Your task to perform on an android device: Show me popular videos on Youtube Image 0: 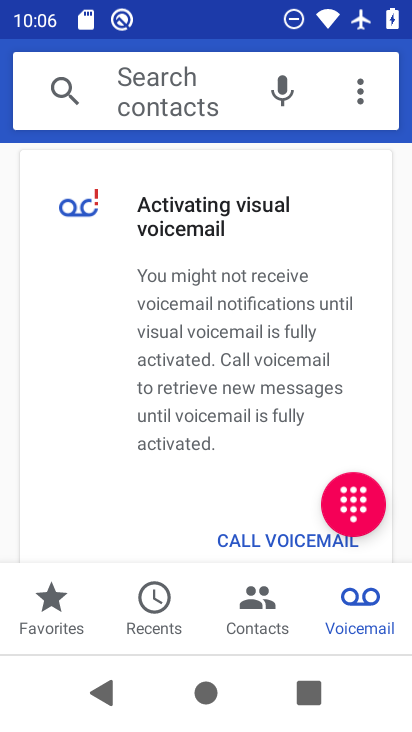
Step 0: press home button
Your task to perform on an android device: Show me popular videos on Youtube Image 1: 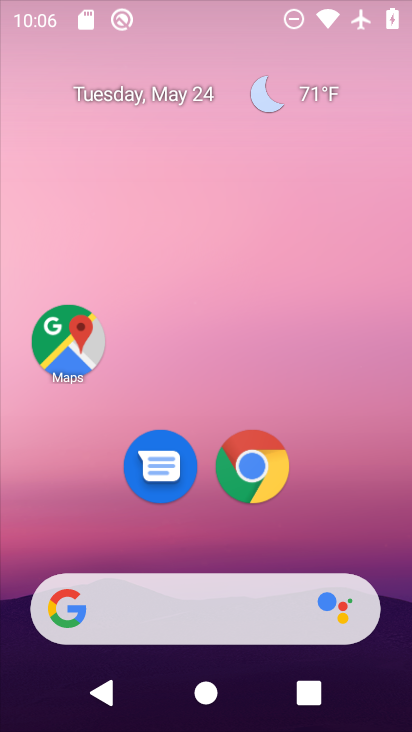
Step 1: drag from (223, 550) to (312, 21)
Your task to perform on an android device: Show me popular videos on Youtube Image 2: 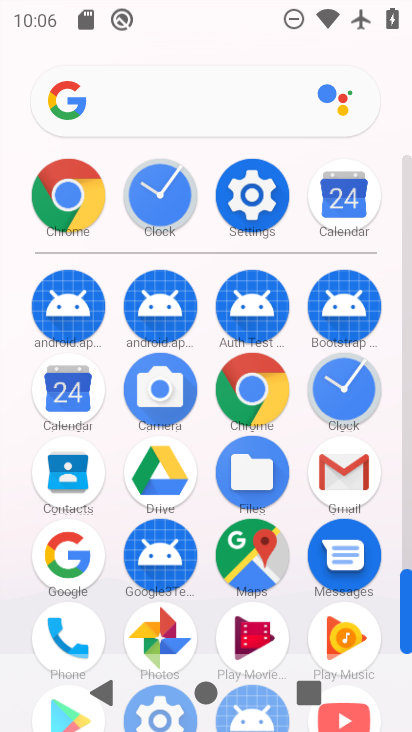
Step 2: drag from (272, 548) to (335, 0)
Your task to perform on an android device: Show me popular videos on Youtube Image 3: 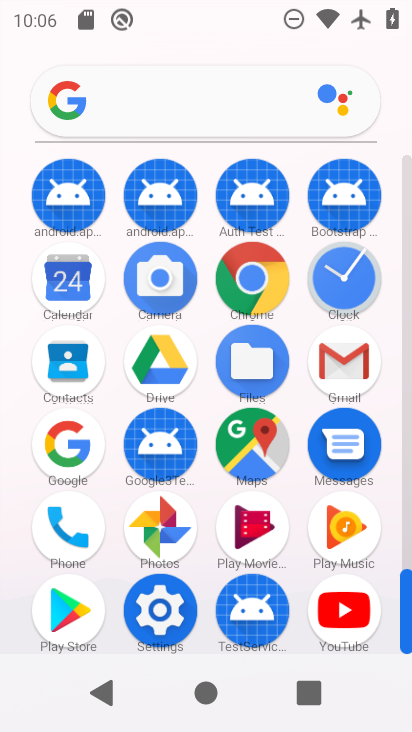
Step 3: click (353, 622)
Your task to perform on an android device: Show me popular videos on Youtube Image 4: 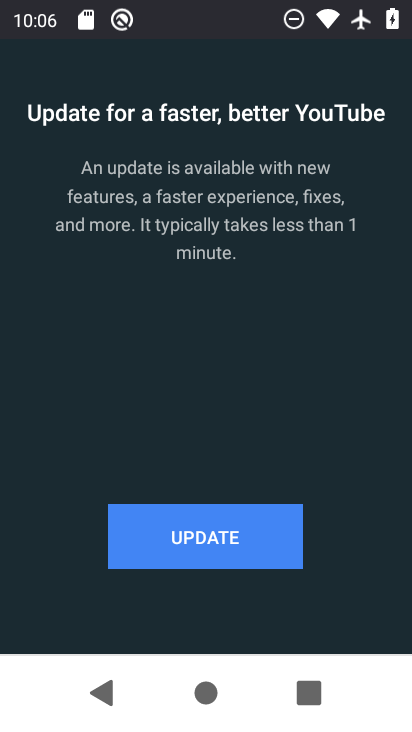
Step 4: click (261, 527)
Your task to perform on an android device: Show me popular videos on Youtube Image 5: 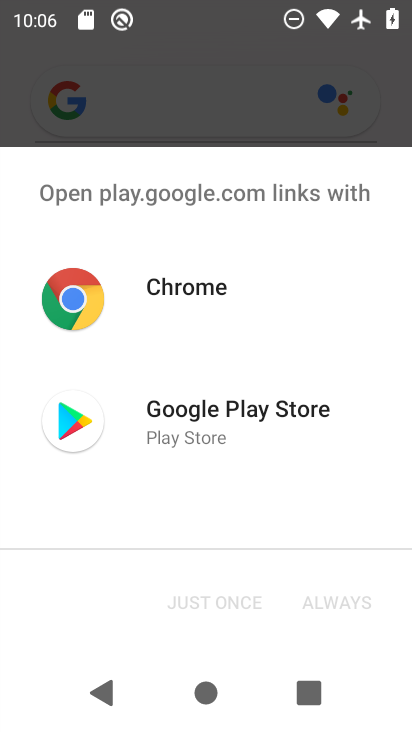
Step 5: click (222, 421)
Your task to perform on an android device: Show me popular videos on Youtube Image 6: 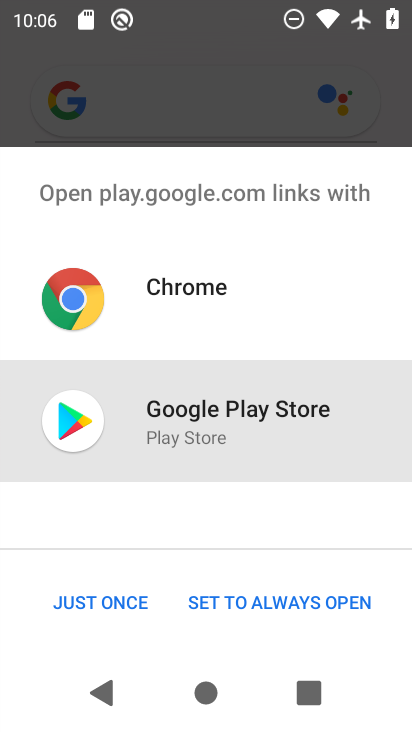
Step 6: click (131, 609)
Your task to perform on an android device: Show me popular videos on Youtube Image 7: 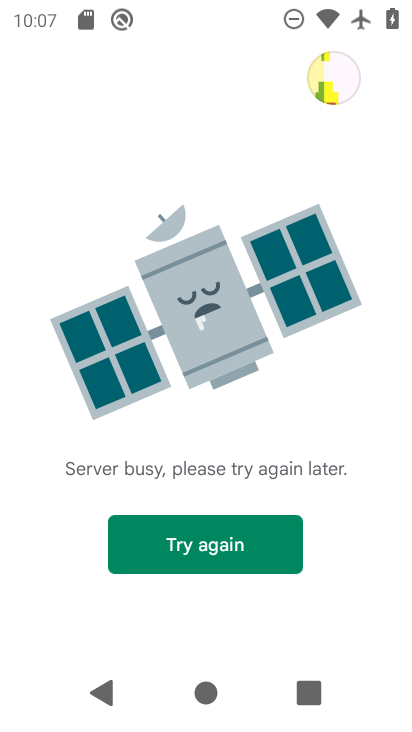
Step 7: click (277, 563)
Your task to perform on an android device: Show me popular videos on Youtube Image 8: 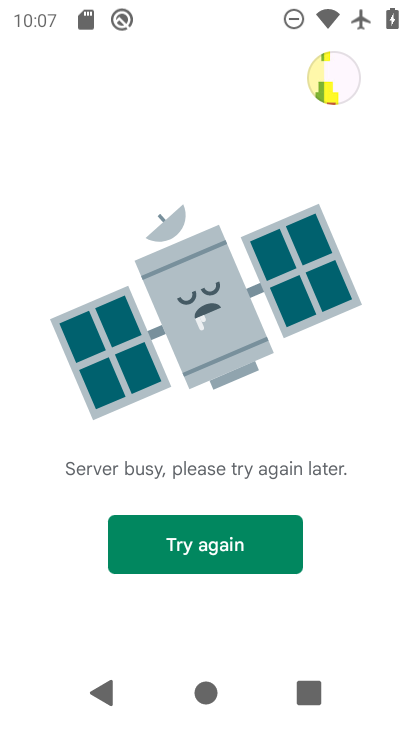
Step 8: click (276, 552)
Your task to perform on an android device: Show me popular videos on Youtube Image 9: 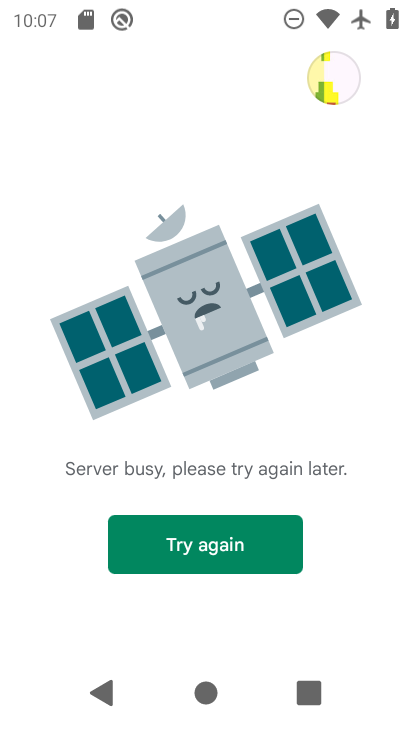
Step 9: click (276, 552)
Your task to perform on an android device: Show me popular videos on Youtube Image 10: 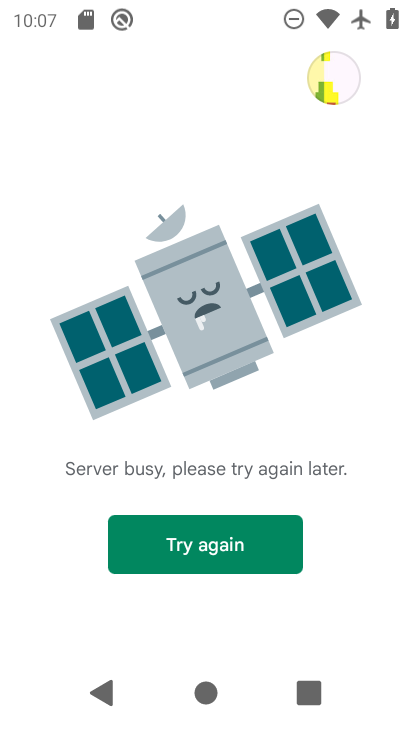
Step 10: task complete